Your task to perform on an android device: Clear all items from cart on costco.com. Add razer blade to the cart on costco.com, then select checkout. Image 0: 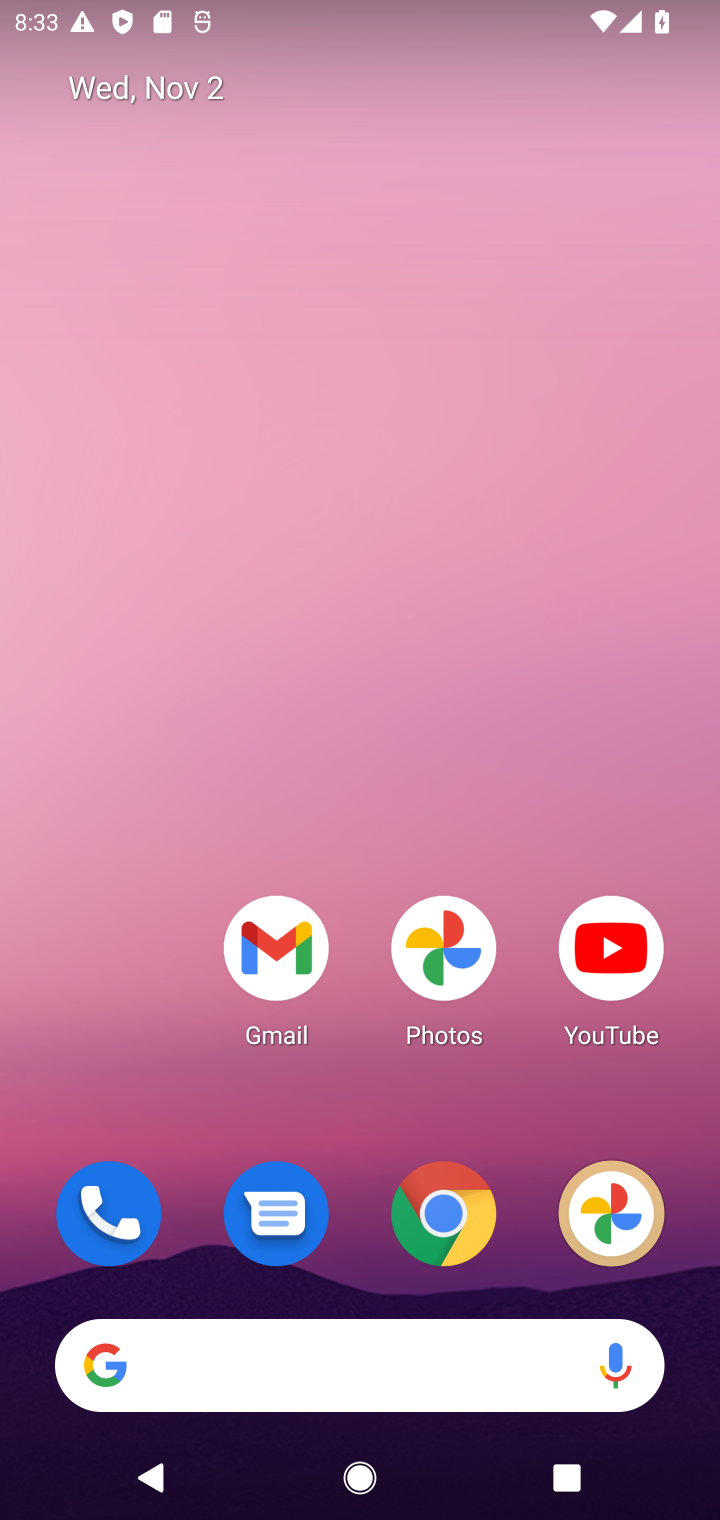
Step 0: click (436, 1222)
Your task to perform on an android device: Clear all items from cart on costco.com. Add razer blade to the cart on costco.com, then select checkout. Image 1: 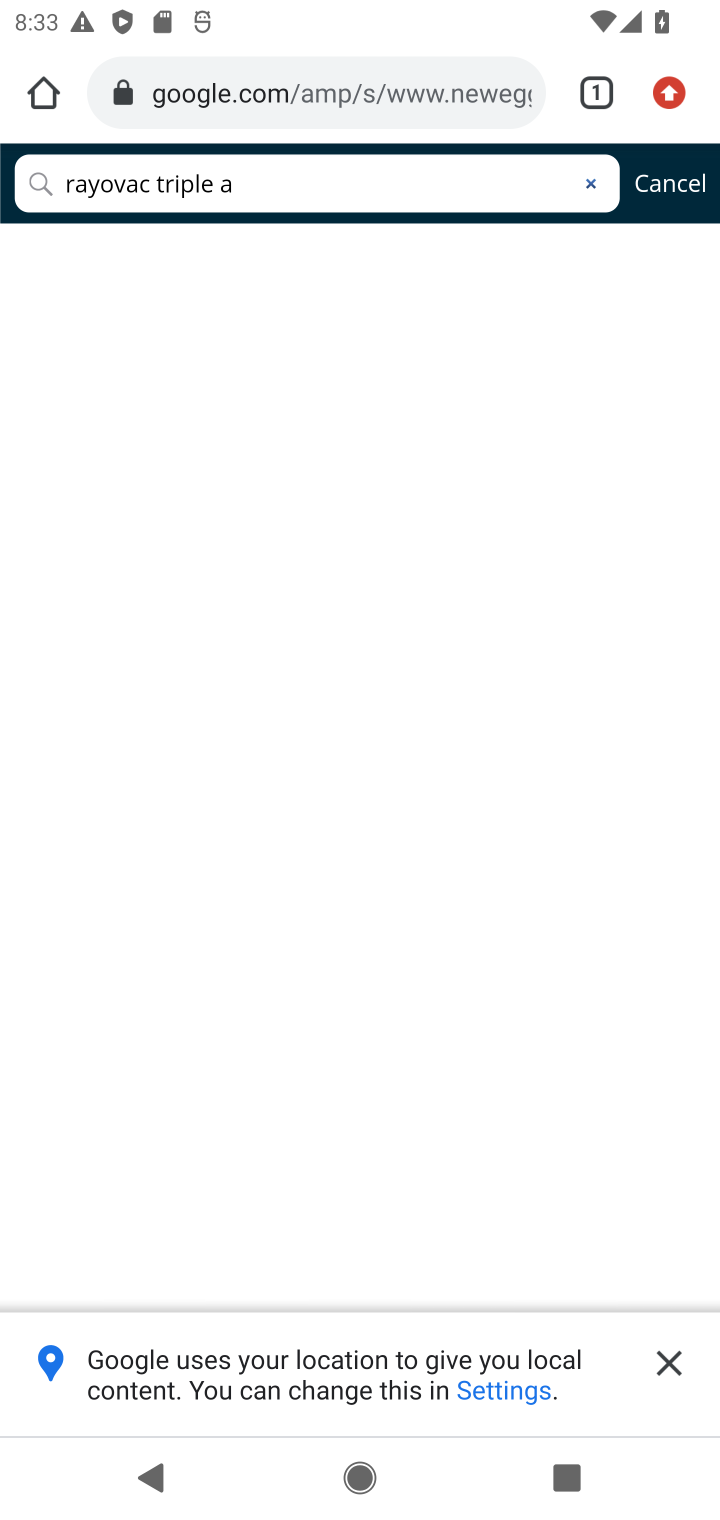
Step 1: click (243, 90)
Your task to perform on an android device: Clear all items from cart on costco.com. Add razer blade to the cart on costco.com, then select checkout. Image 2: 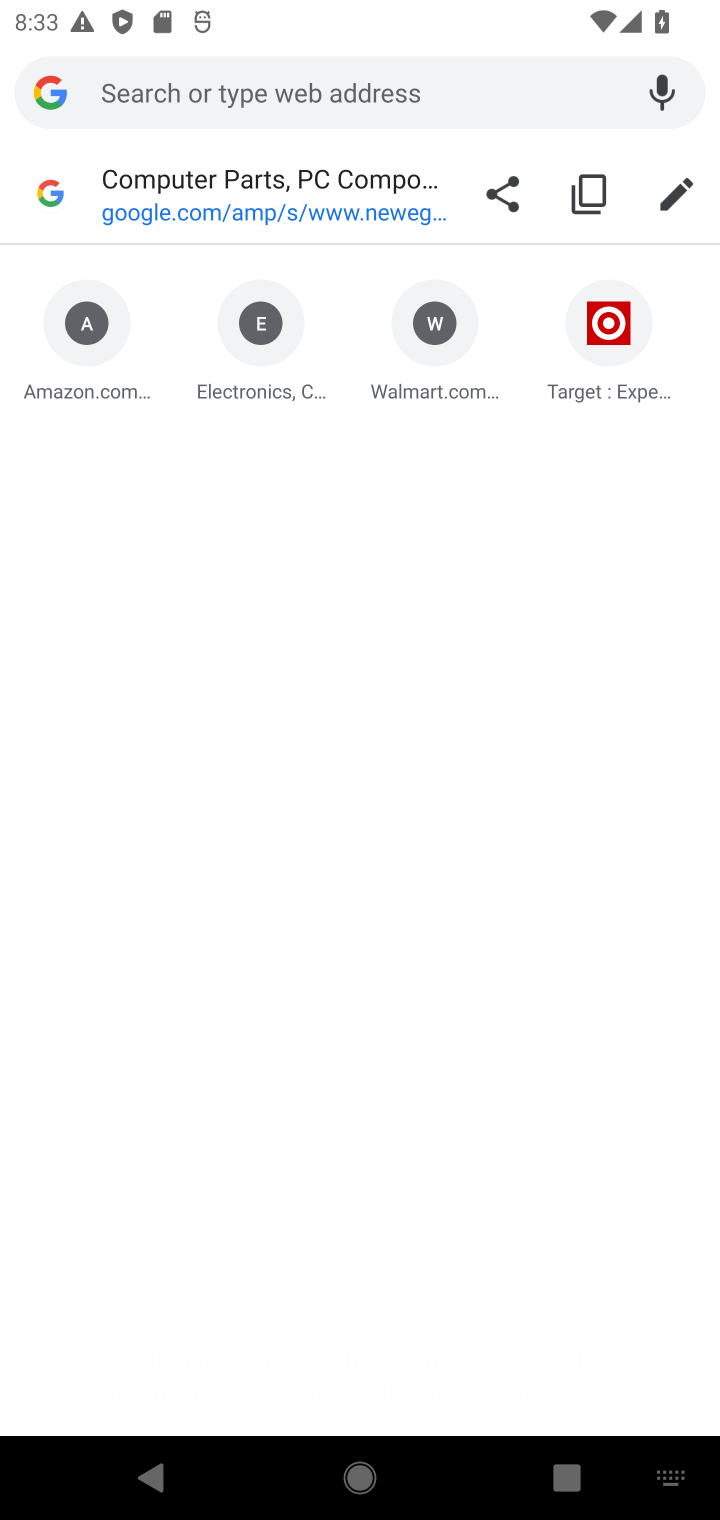
Step 2: type "costco.com"
Your task to perform on an android device: Clear all items from cart on costco.com. Add razer blade to the cart on costco.com, then select checkout. Image 3: 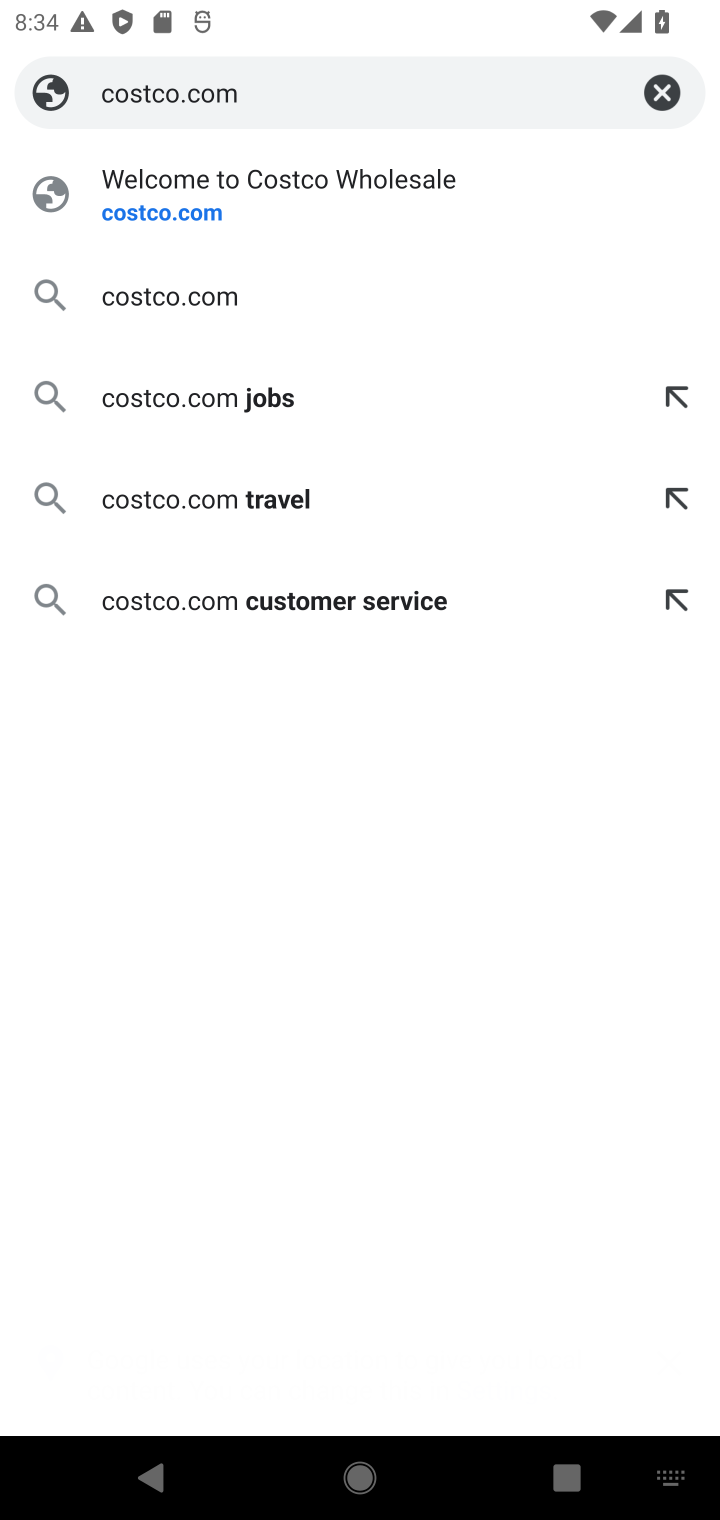
Step 3: click (153, 205)
Your task to perform on an android device: Clear all items from cart on costco.com. Add razer blade to the cart on costco.com, then select checkout. Image 4: 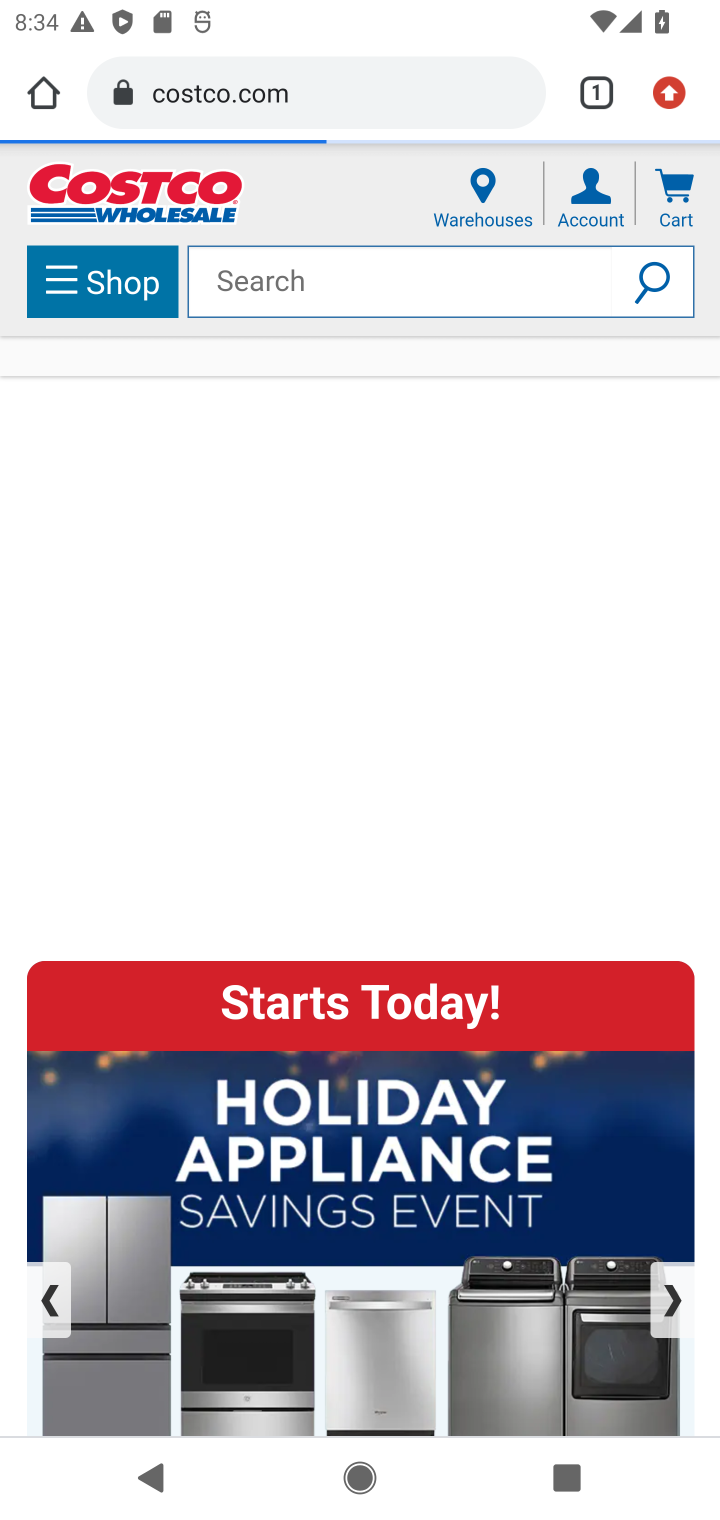
Step 4: click (662, 207)
Your task to perform on an android device: Clear all items from cart on costco.com. Add razer blade to the cart on costco.com, then select checkout. Image 5: 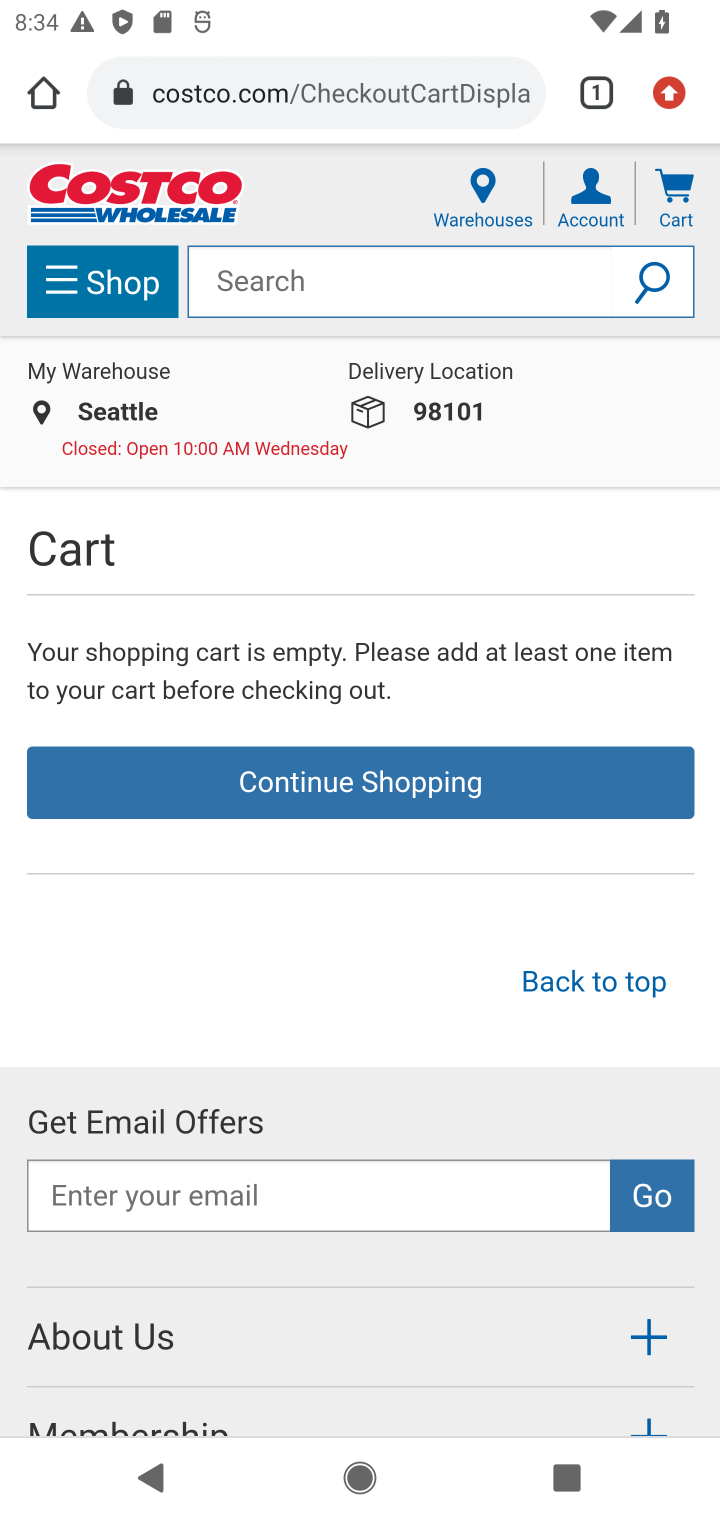
Step 5: click (341, 252)
Your task to perform on an android device: Clear all items from cart on costco.com. Add razer blade to the cart on costco.com, then select checkout. Image 6: 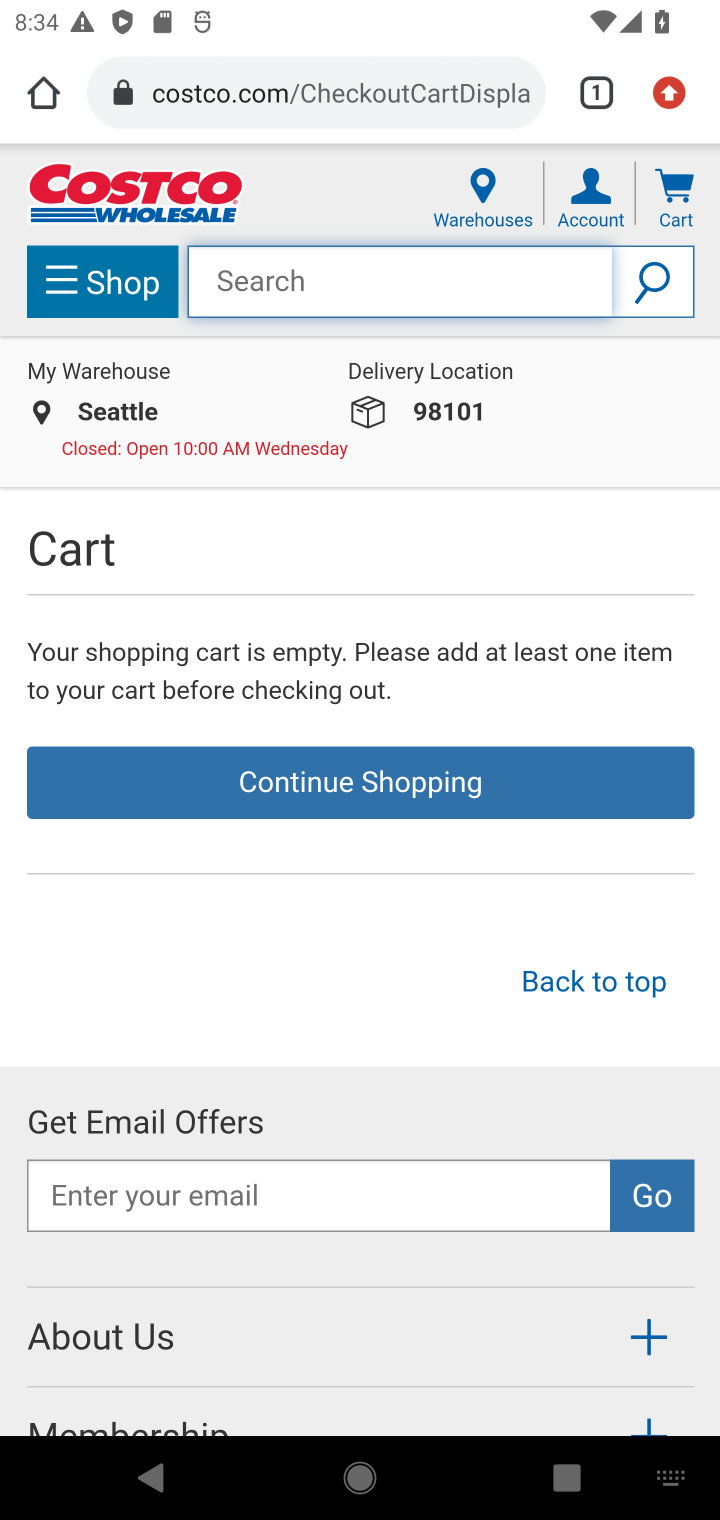
Step 6: type "razer blade"
Your task to perform on an android device: Clear all items from cart on costco.com. Add razer blade to the cart on costco.com, then select checkout. Image 7: 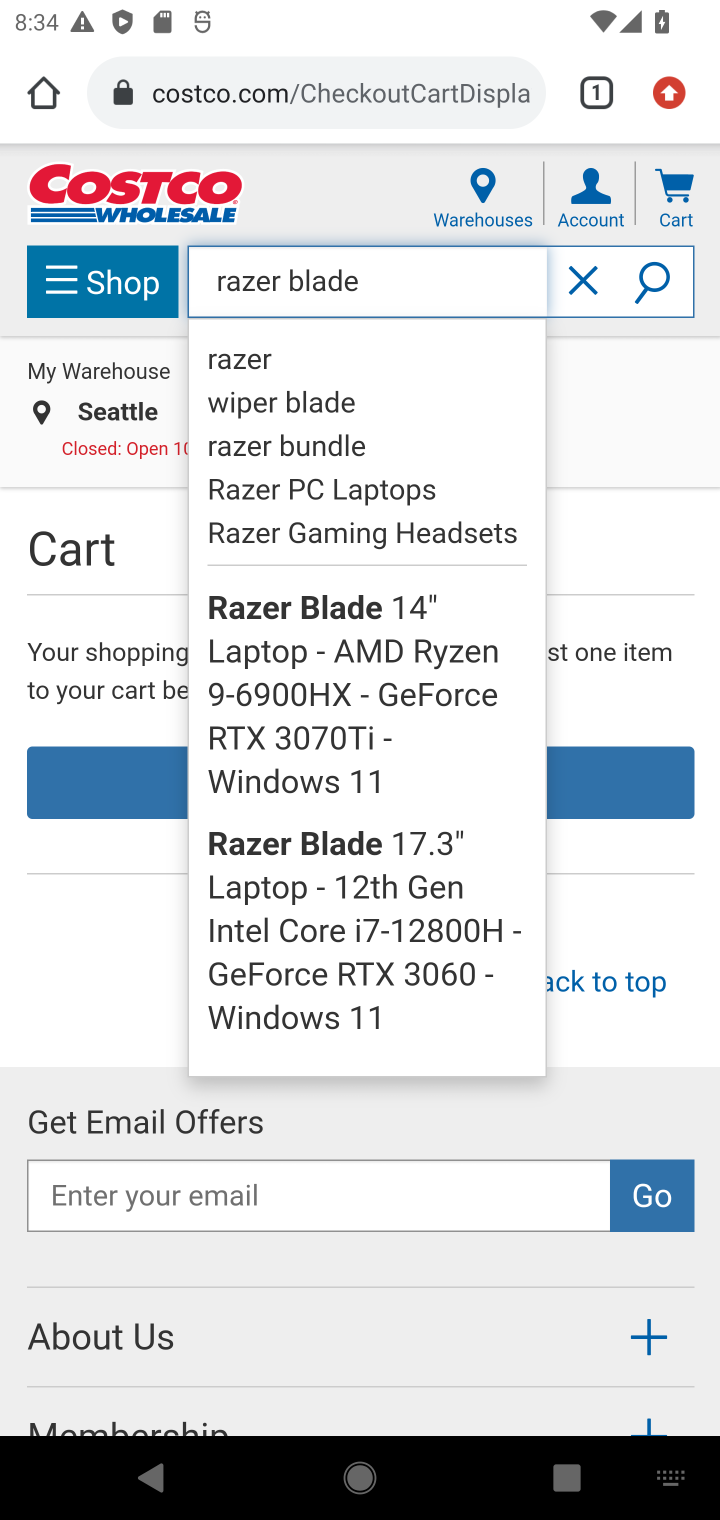
Step 7: click (660, 281)
Your task to perform on an android device: Clear all items from cart on costco.com. Add razer blade to the cart on costco.com, then select checkout. Image 8: 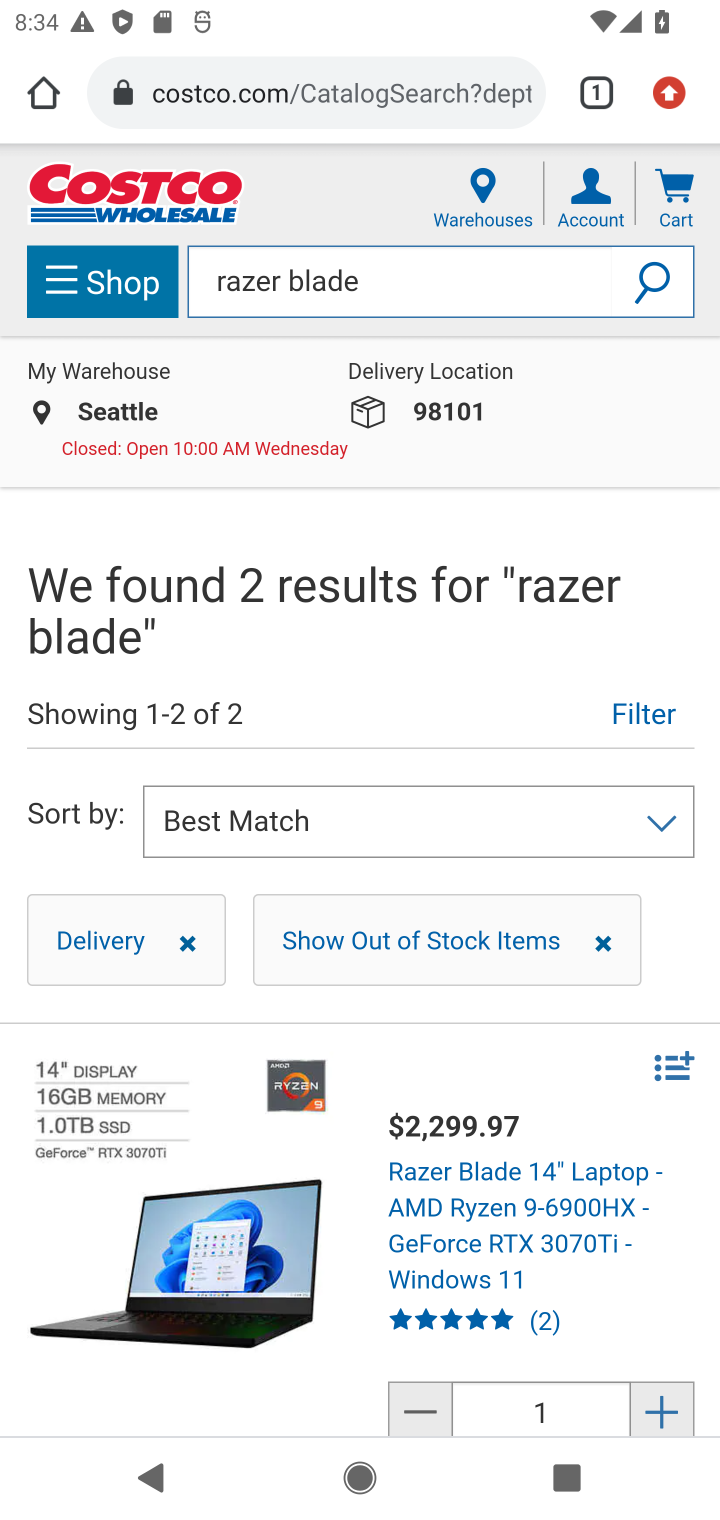
Step 8: click (402, 1249)
Your task to perform on an android device: Clear all items from cart on costco.com. Add razer blade to the cart on costco.com, then select checkout. Image 9: 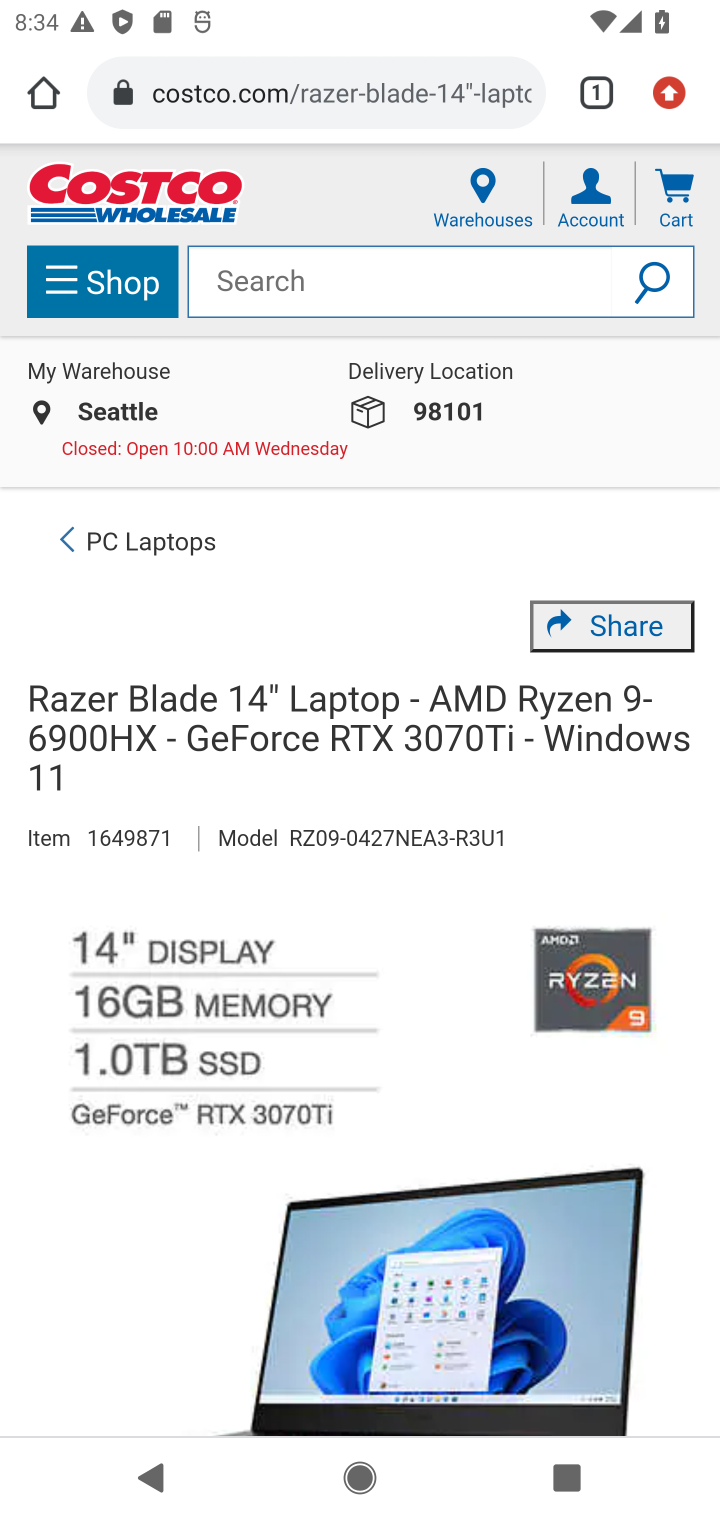
Step 9: drag from (299, 1135) to (338, 564)
Your task to perform on an android device: Clear all items from cart on costco.com. Add razer blade to the cart on costco.com, then select checkout. Image 10: 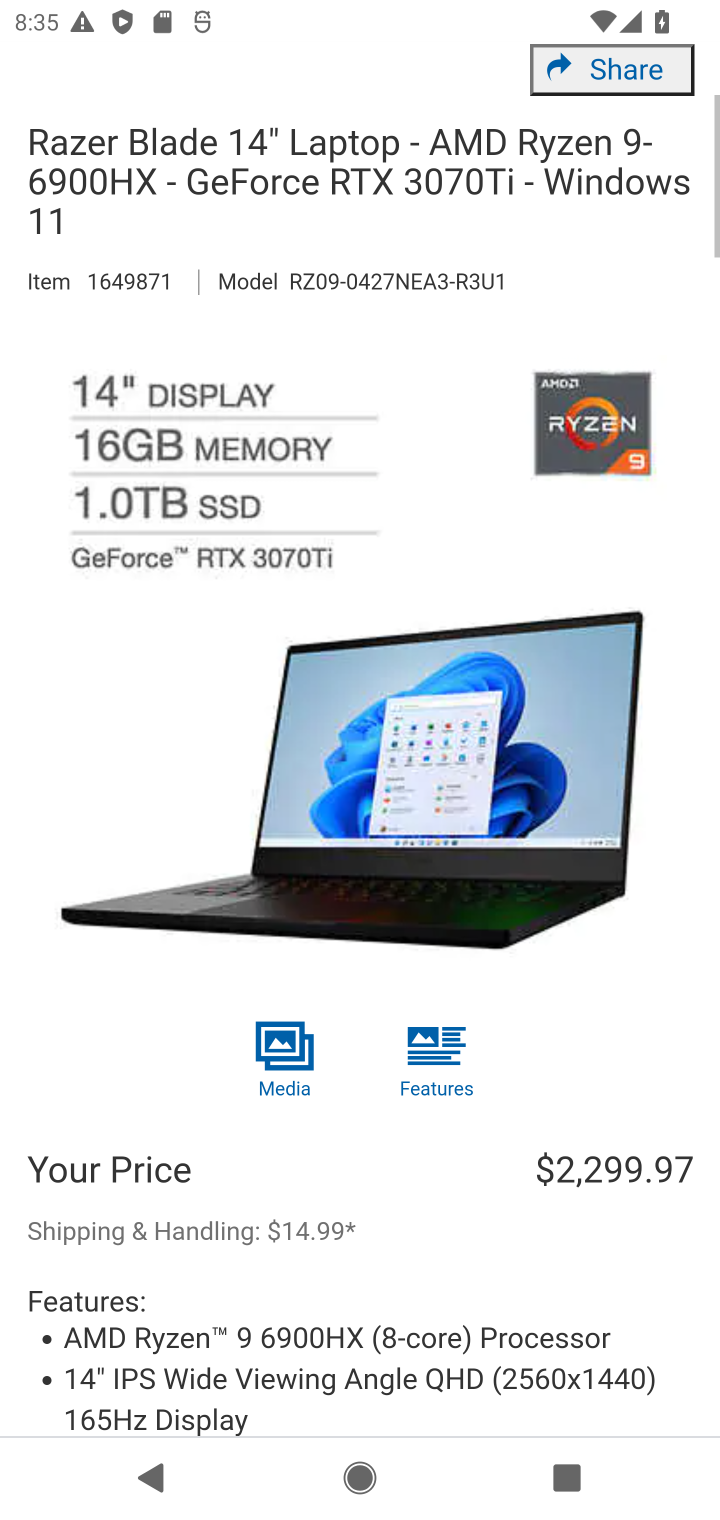
Step 10: drag from (300, 1085) to (300, 472)
Your task to perform on an android device: Clear all items from cart on costco.com. Add razer blade to the cart on costco.com, then select checkout. Image 11: 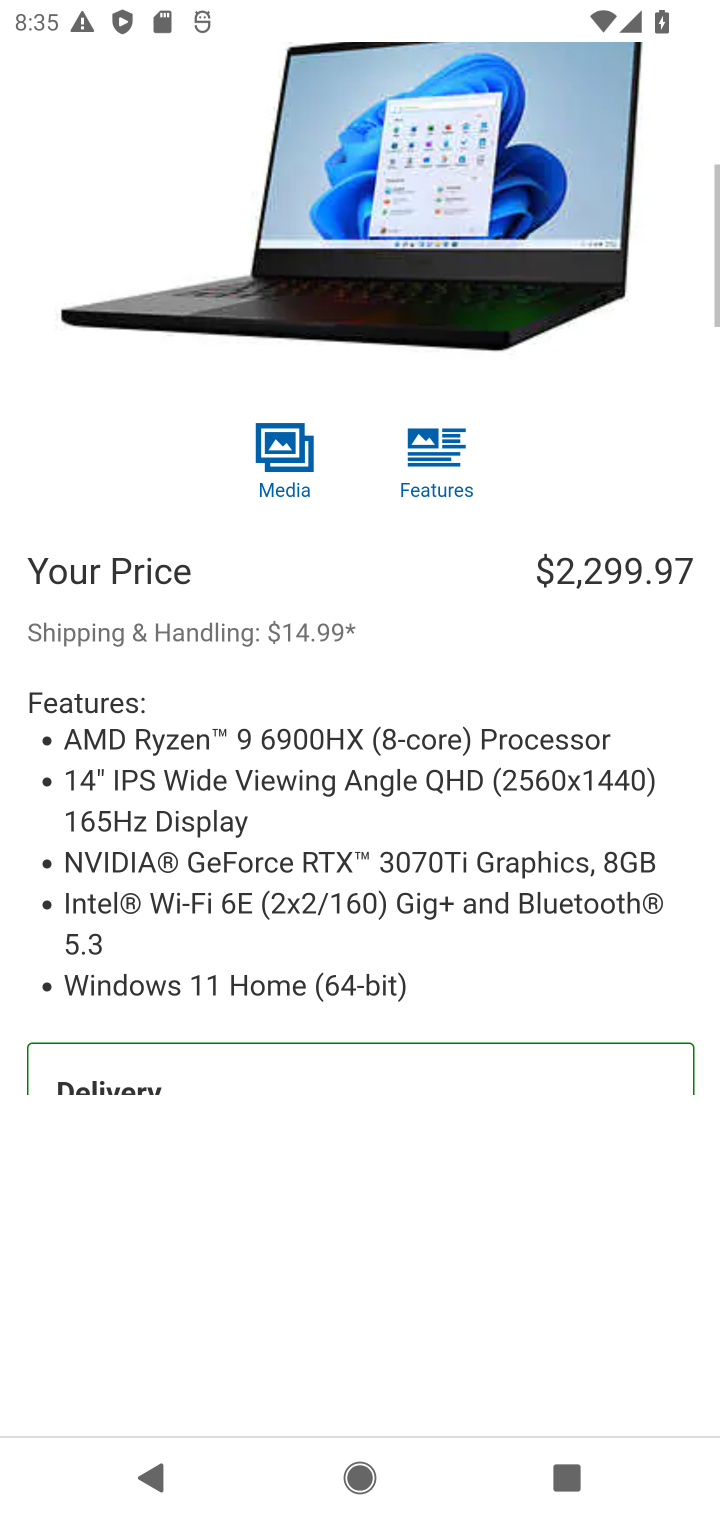
Step 11: drag from (352, 1125) to (311, 549)
Your task to perform on an android device: Clear all items from cart on costco.com. Add razer blade to the cart on costco.com, then select checkout. Image 12: 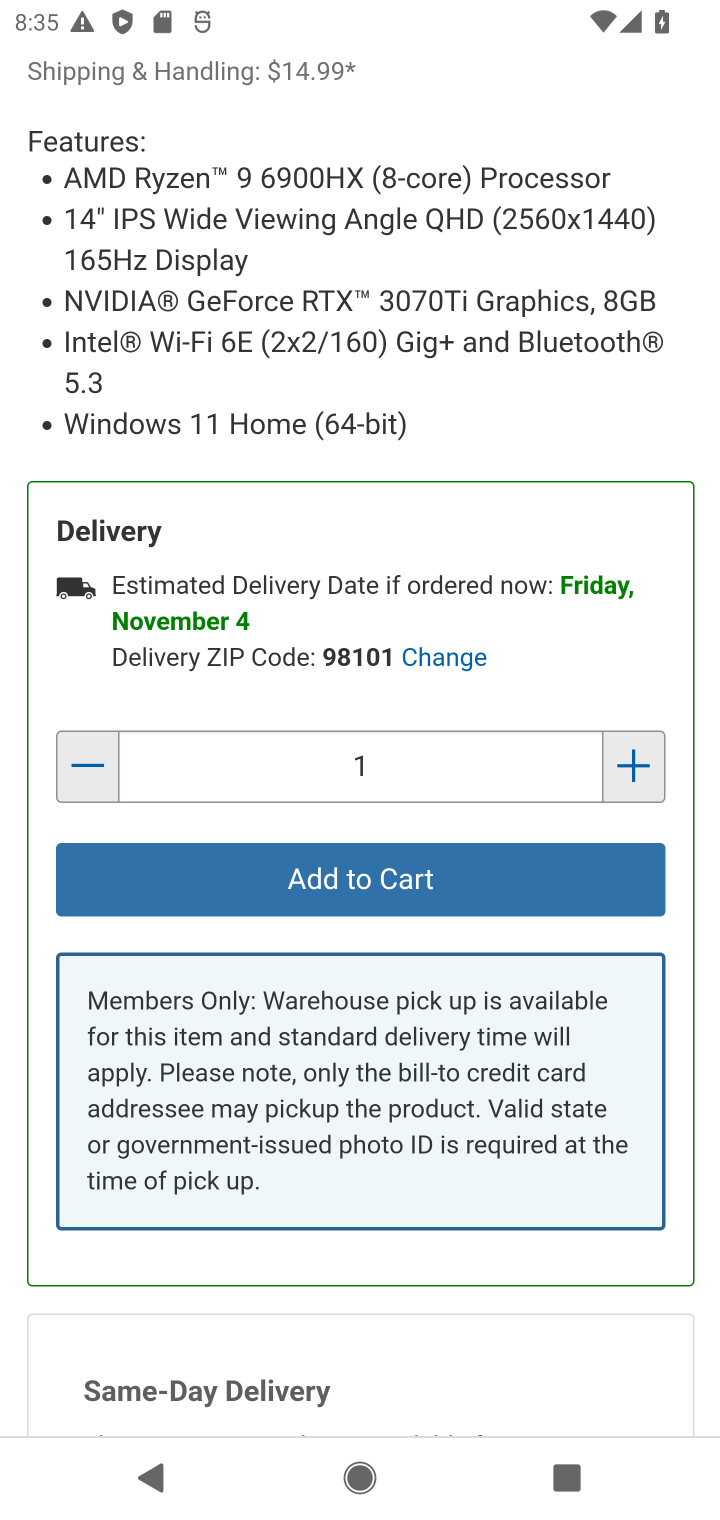
Step 12: click (308, 892)
Your task to perform on an android device: Clear all items from cart on costco.com. Add razer blade to the cart on costco.com, then select checkout. Image 13: 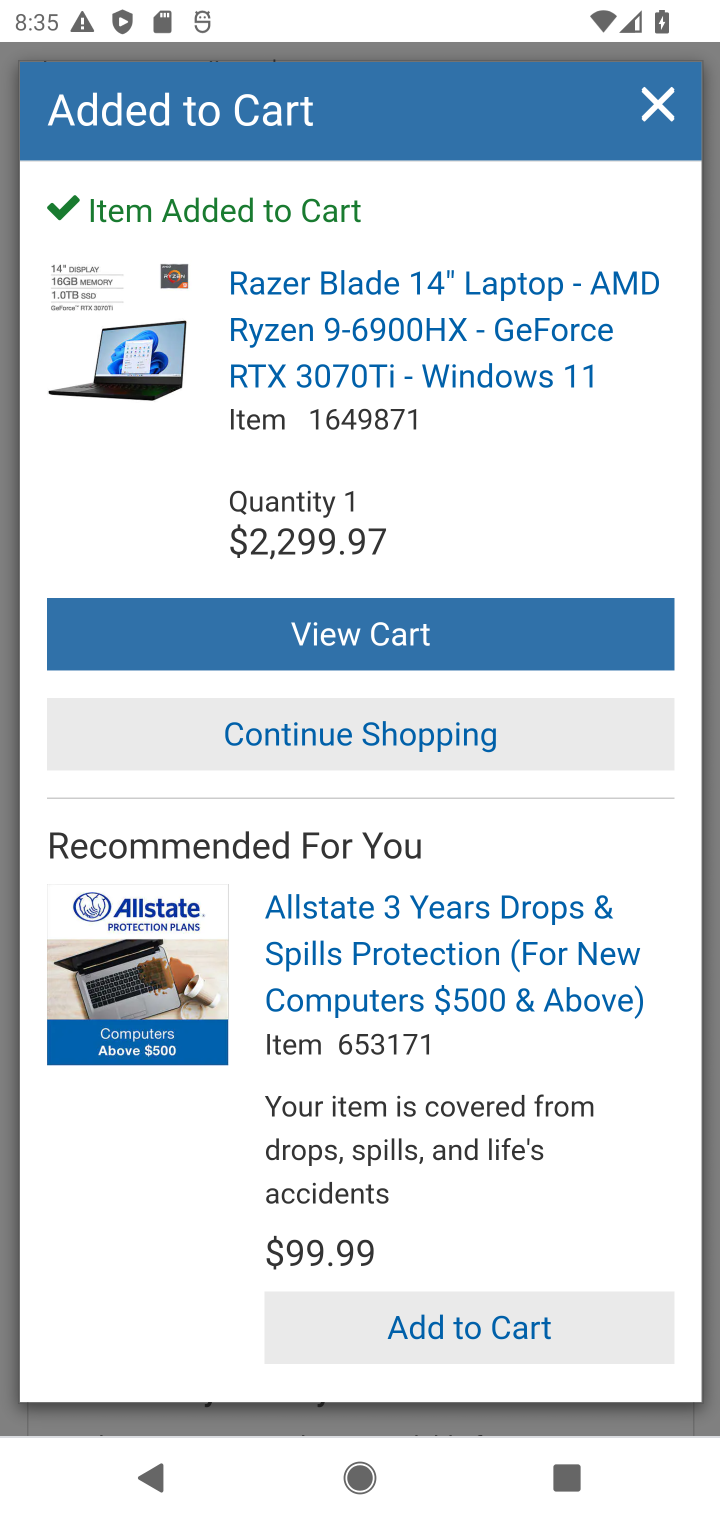
Step 13: click (321, 628)
Your task to perform on an android device: Clear all items from cart on costco.com. Add razer blade to the cart on costco.com, then select checkout. Image 14: 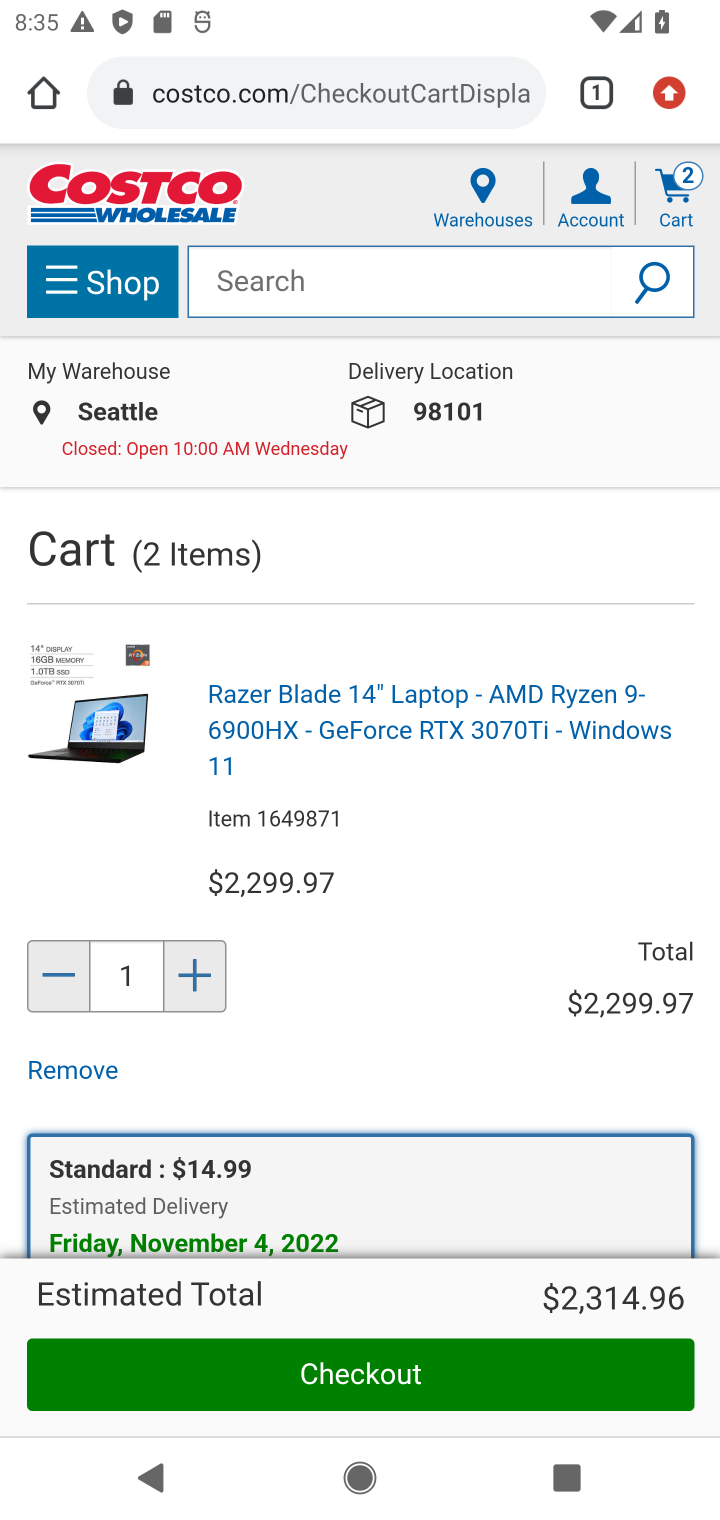
Step 14: click (366, 1385)
Your task to perform on an android device: Clear all items from cart on costco.com. Add razer blade to the cart on costco.com, then select checkout. Image 15: 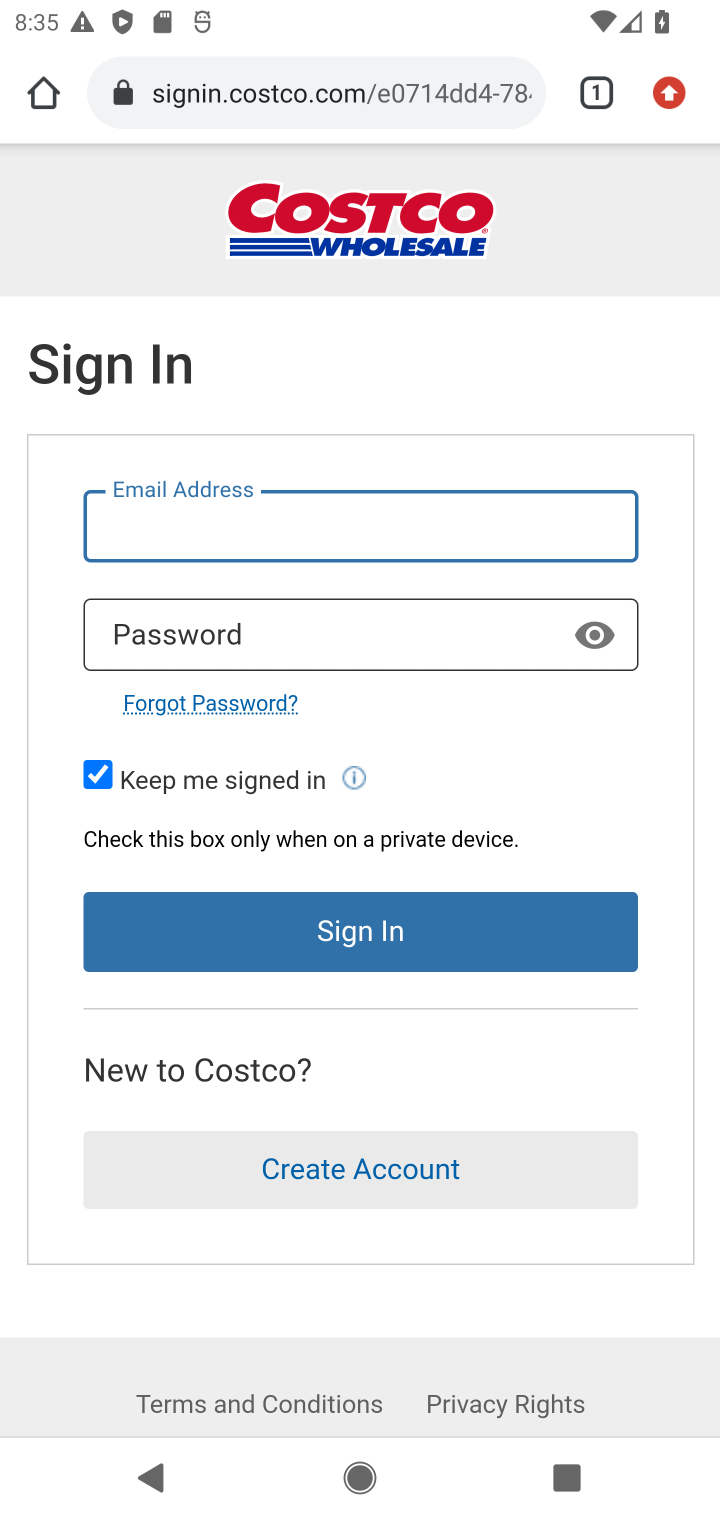
Step 15: task complete